Your task to perform on an android device: Open the calendar and show me this week's events? Image 0: 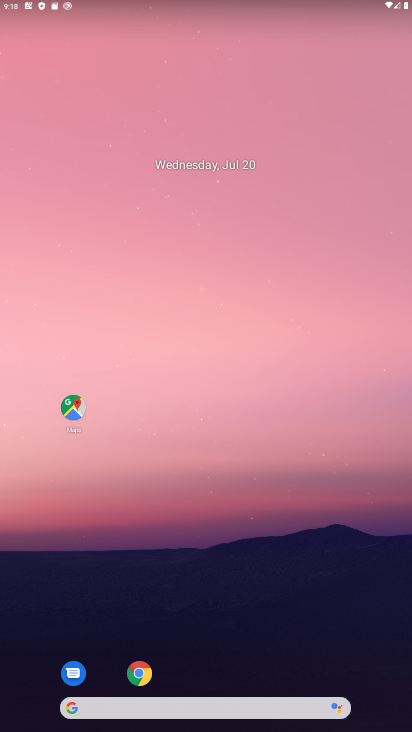
Step 0: drag from (229, 591) to (367, 16)
Your task to perform on an android device: Open the calendar and show me this week's events? Image 1: 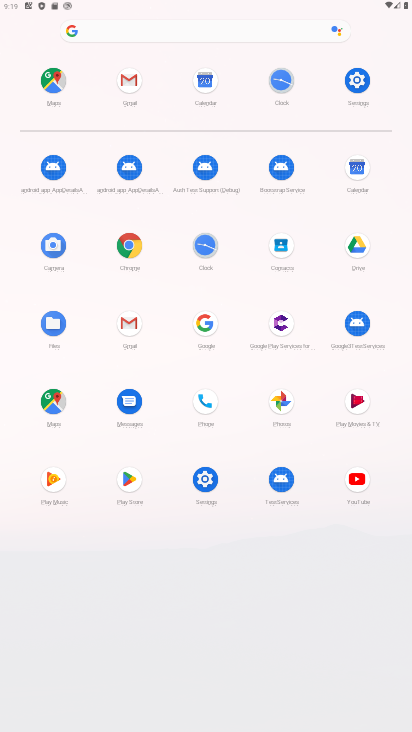
Step 1: click (353, 165)
Your task to perform on an android device: Open the calendar and show me this week's events? Image 2: 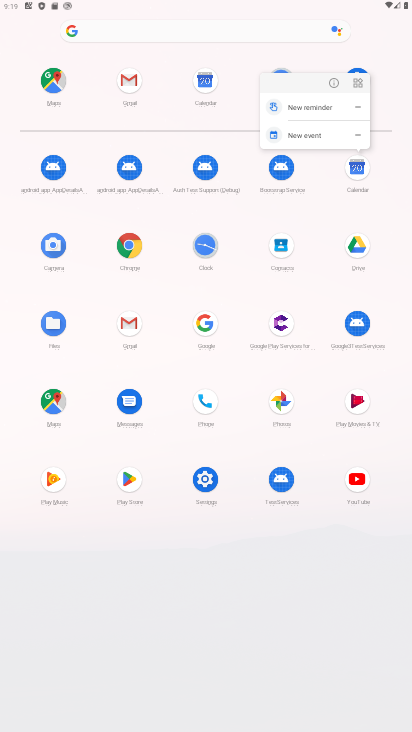
Step 2: click (332, 81)
Your task to perform on an android device: Open the calendar and show me this week's events? Image 3: 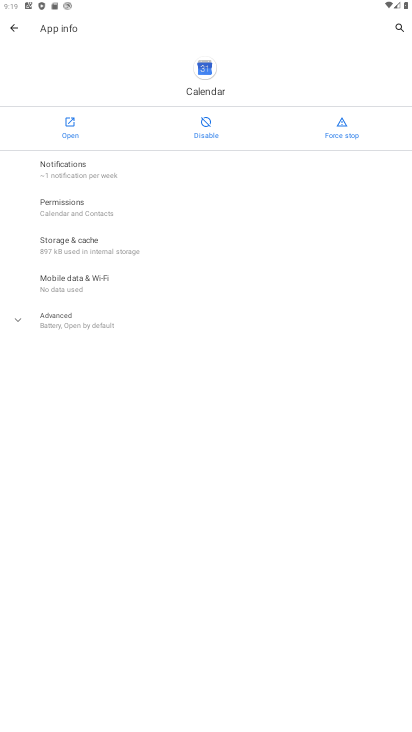
Step 3: click (73, 134)
Your task to perform on an android device: Open the calendar and show me this week's events? Image 4: 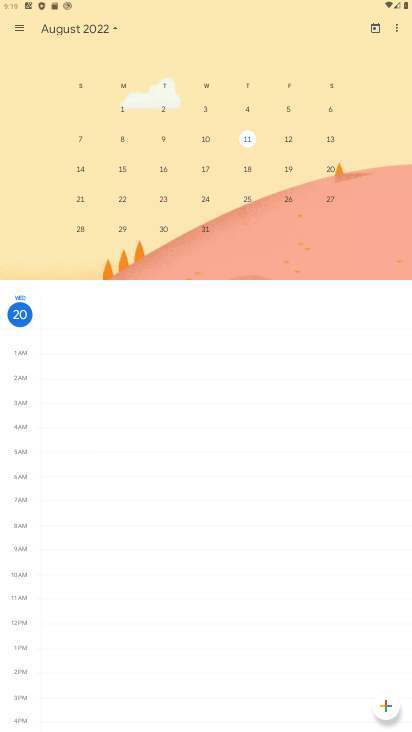
Step 4: drag from (92, 144) to (404, 220)
Your task to perform on an android device: Open the calendar and show me this week's events? Image 5: 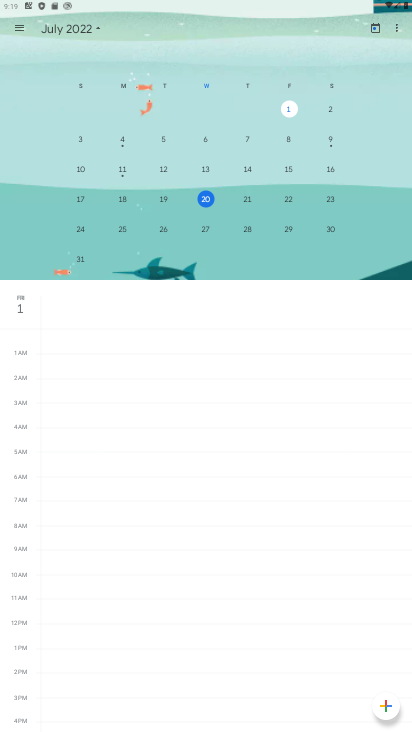
Step 5: click (328, 201)
Your task to perform on an android device: Open the calendar and show me this week's events? Image 6: 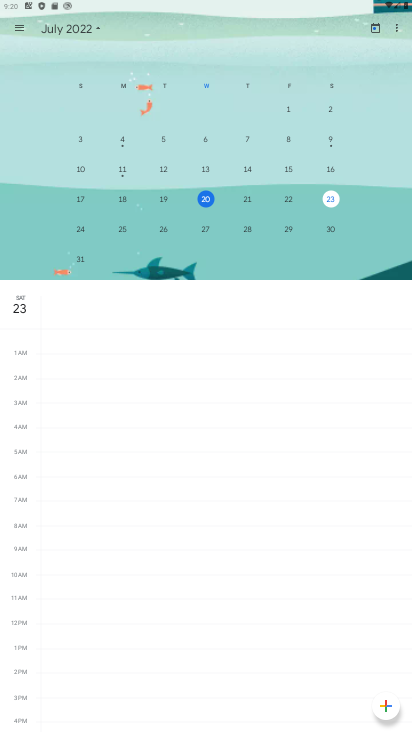
Step 6: task complete